Your task to perform on an android device: uninstall "Spotify: Music and Podcasts" Image 0: 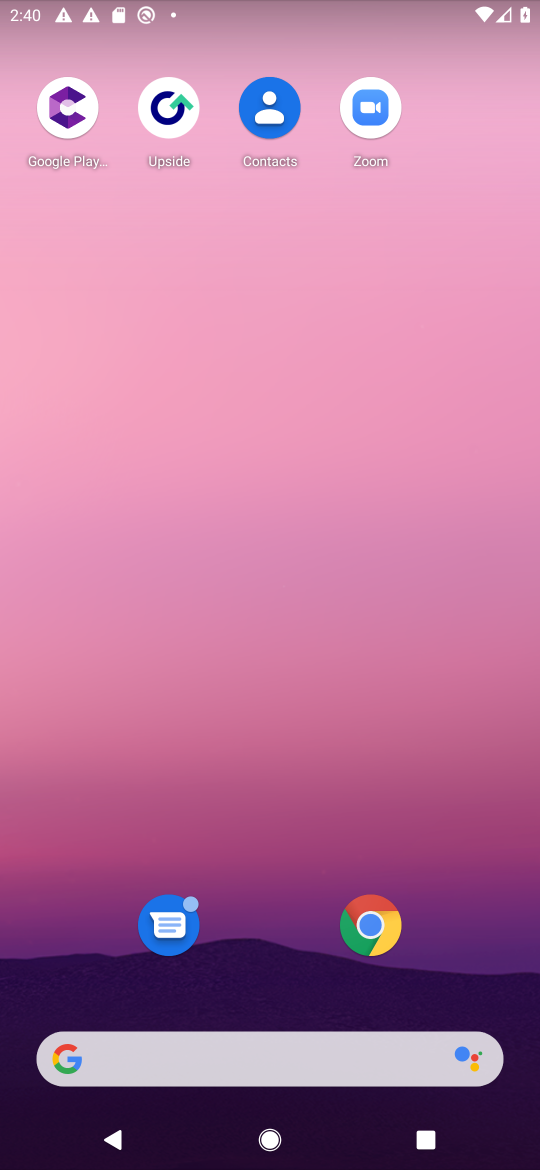
Step 0: press home button
Your task to perform on an android device: uninstall "Spotify: Music and Podcasts" Image 1: 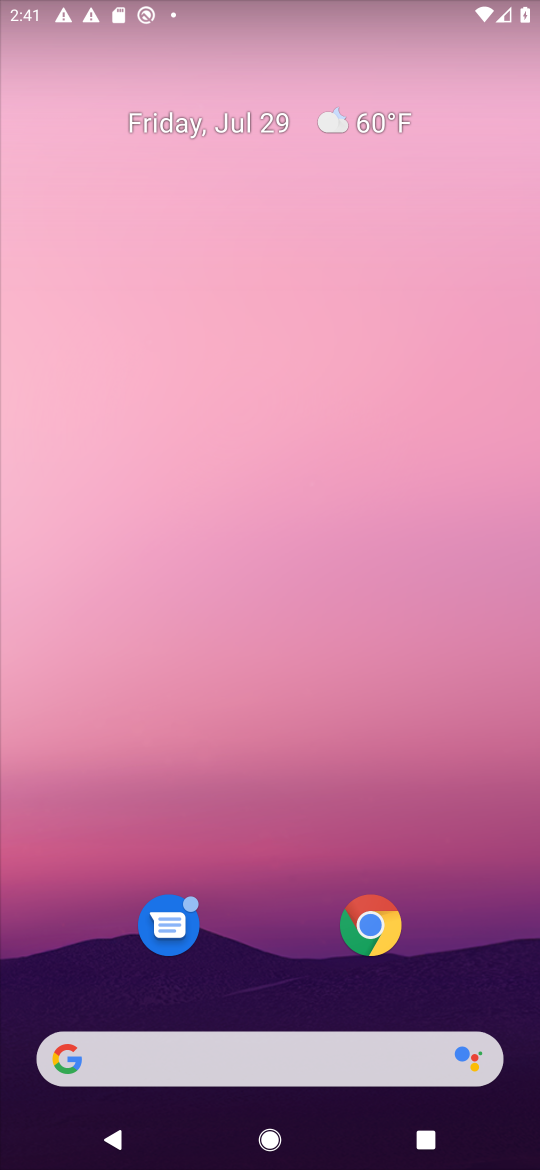
Step 1: drag from (304, 851) to (328, 7)
Your task to perform on an android device: uninstall "Spotify: Music and Podcasts" Image 2: 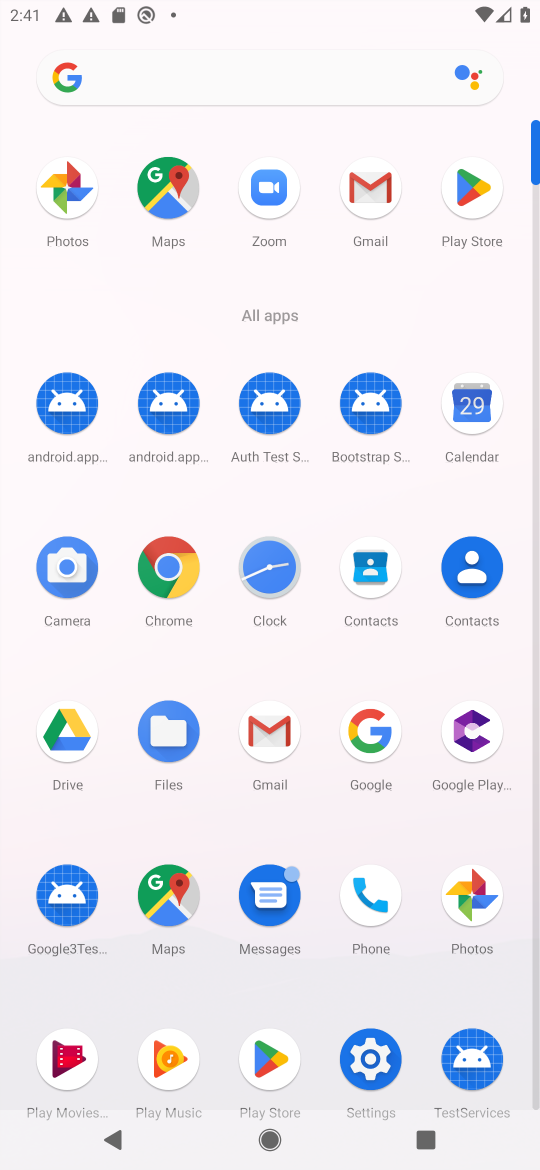
Step 2: click (475, 187)
Your task to perform on an android device: uninstall "Spotify: Music and Podcasts" Image 3: 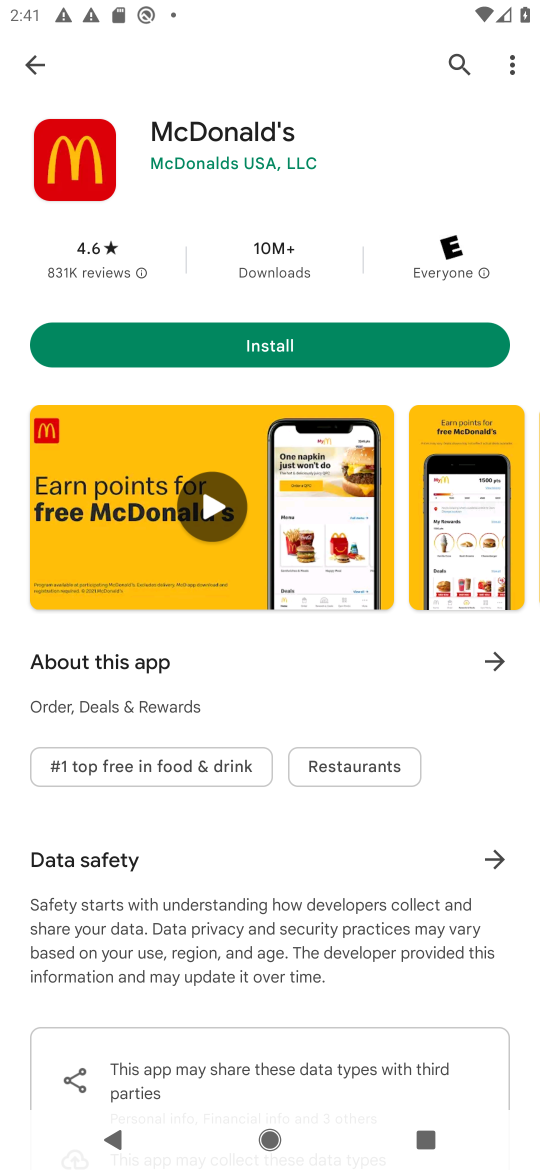
Step 3: click (446, 62)
Your task to perform on an android device: uninstall "Spotify: Music and Podcasts" Image 4: 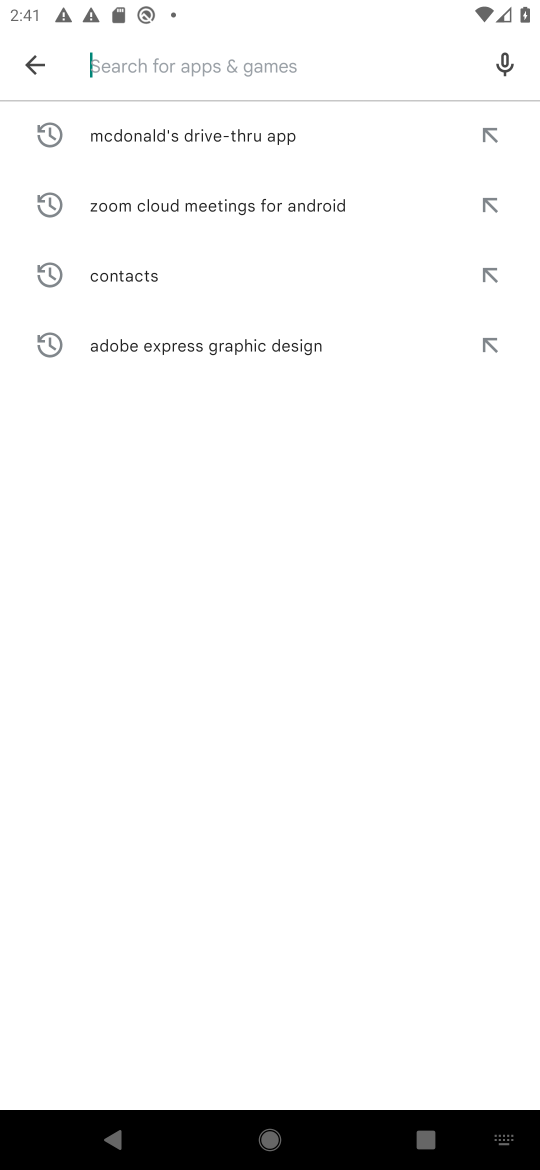
Step 4: type "Spotify: Music and Podcasts"
Your task to perform on an android device: uninstall "Spotify: Music and Podcasts" Image 5: 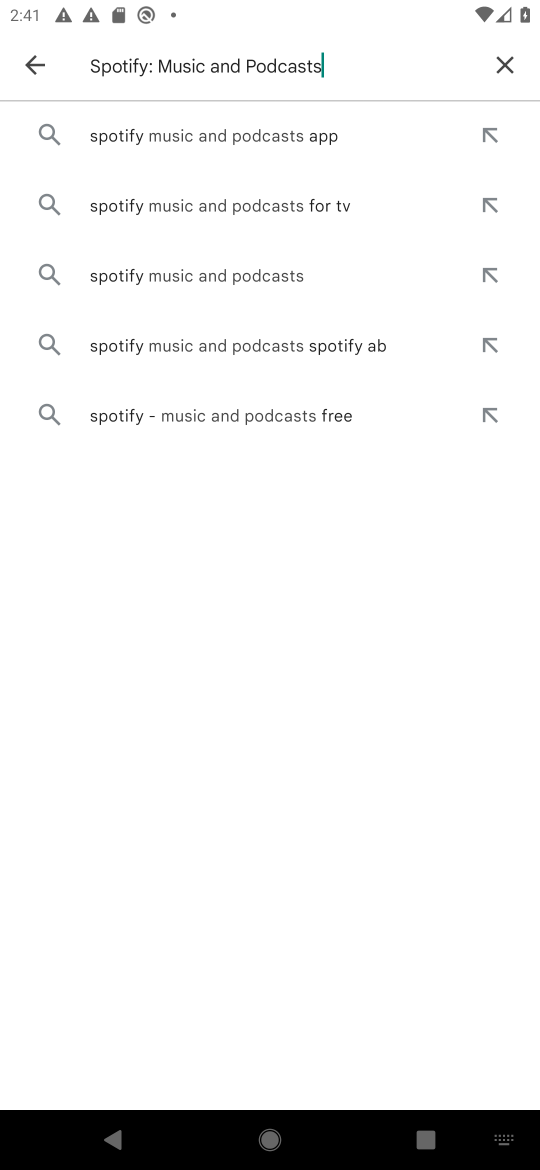
Step 5: click (166, 147)
Your task to perform on an android device: uninstall "Spotify: Music and Podcasts" Image 6: 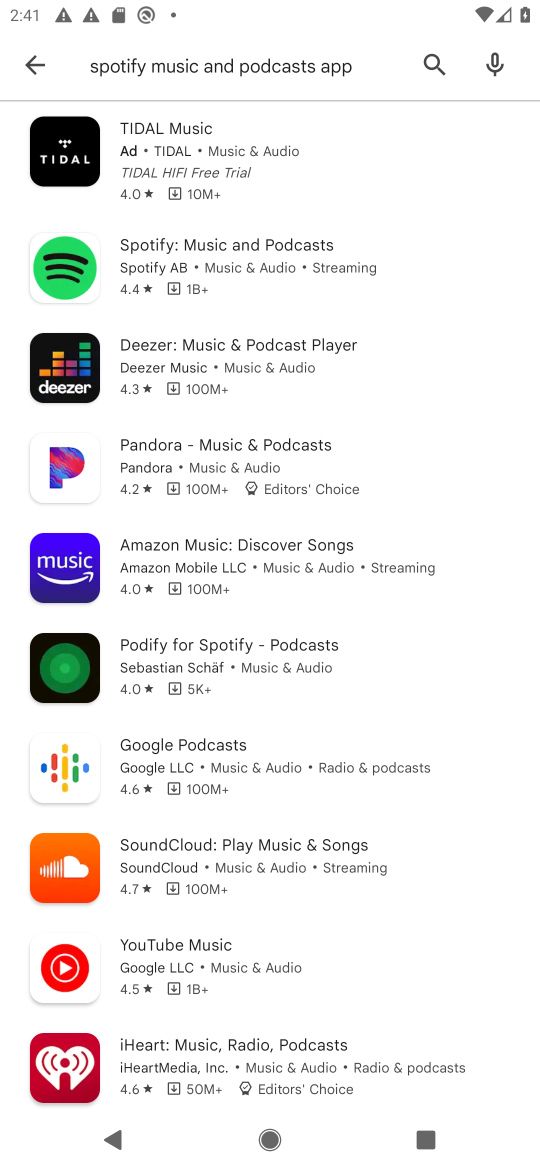
Step 6: click (155, 282)
Your task to perform on an android device: uninstall "Spotify: Music and Podcasts" Image 7: 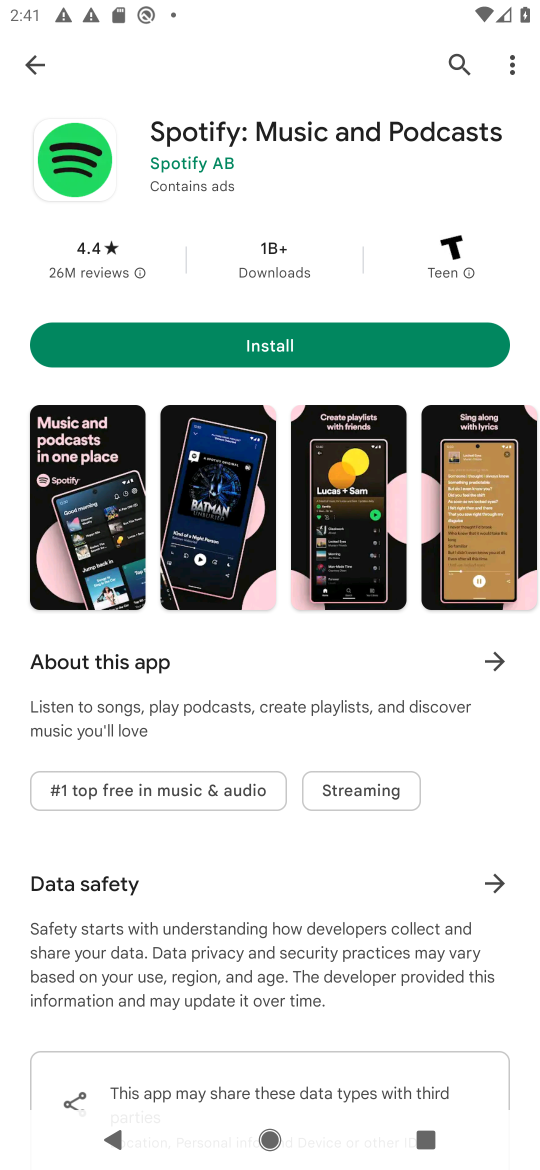
Step 7: task complete